Your task to perform on an android device: set default search engine in the chrome app Image 0: 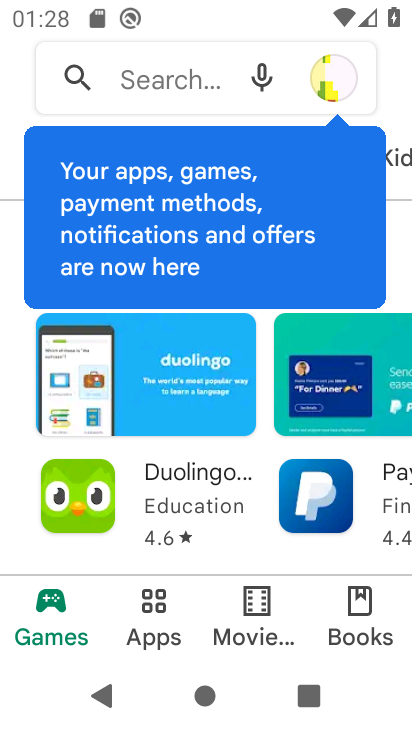
Step 0: press home button
Your task to perform on an android device: set default search engine in the chrome app Image 1: 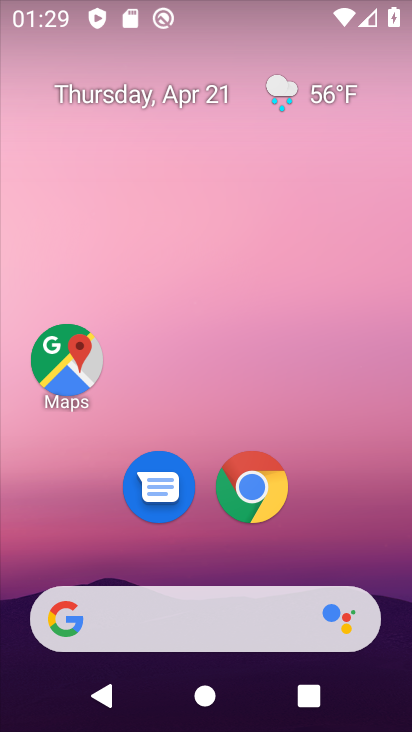
Step 1: click (257, 494)
Your task to perform on an android device: set default search engine in the chrome app Image 2: 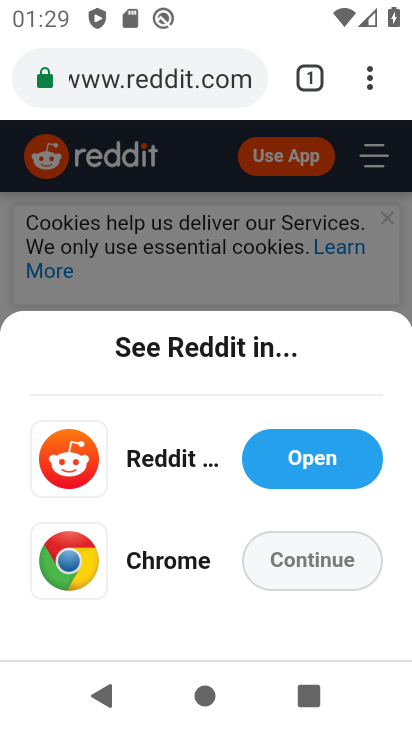
Step 2: click (370, 84)
Your task to perform on an android device: set default search engine in the chrome app Image 3: 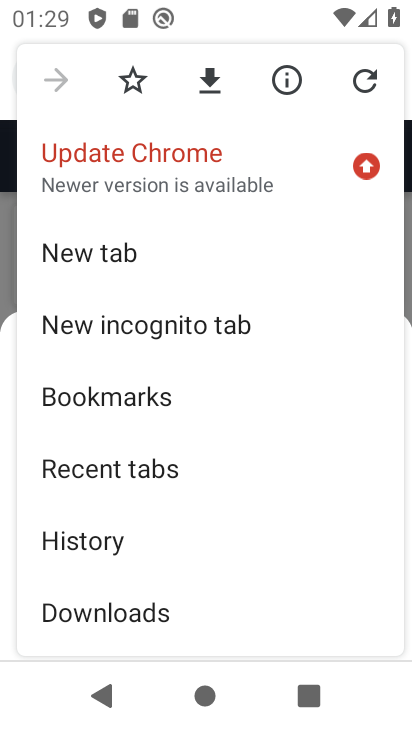
Step 3: drag from (149, 569) to (145, 349)
Your task to perform on an android device: set default search engine in the chrome app Image 4: 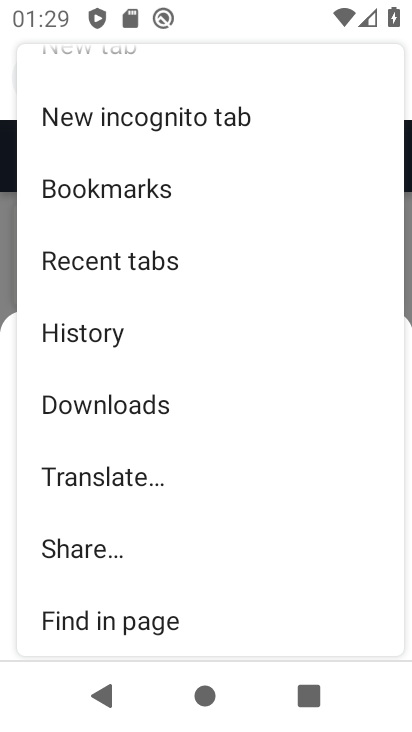
Step 4: drag from (174, 508) to (165, 373)
Your task to perform on an android device: set default search engine in the chrome app Image 5: 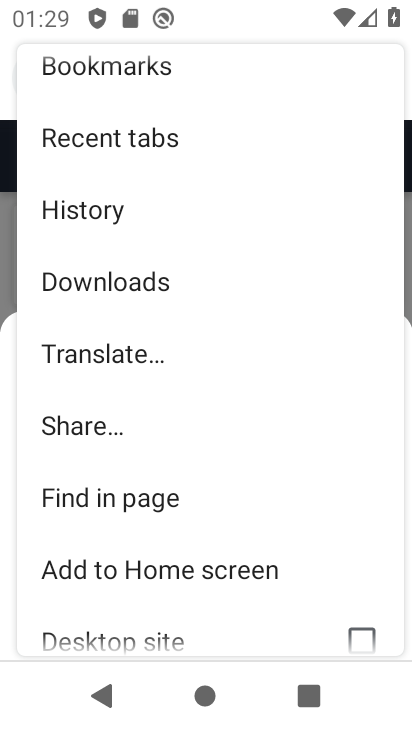
Step 5: drag from (186, 554) to (197, 400)
Your task to perform on an android device: set default search engine in the chrome app Image 6: 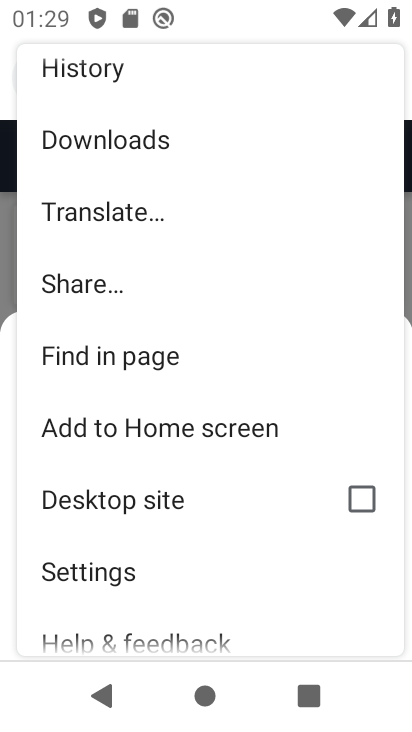
Step 6: click (181, 565)
Your task to perform on an android device: set default search engine in the chrome app Image 7: 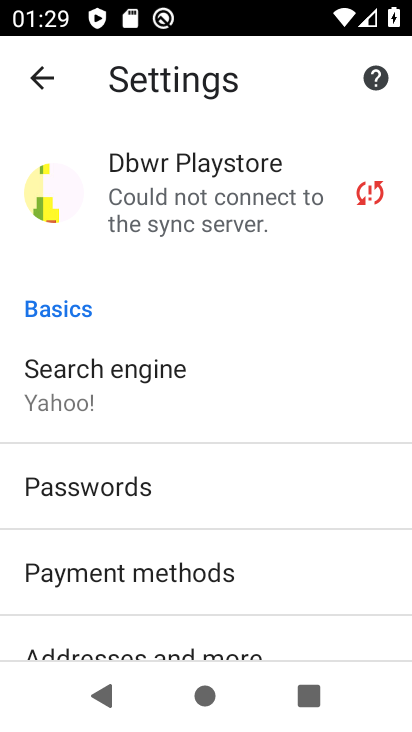
Step 7: click (174, 396)
Your task to perform on an android device: set default search engine in the chrome app Image 8: 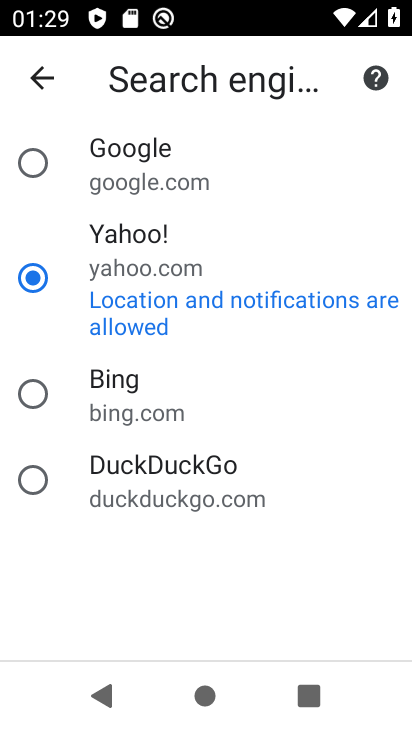
Step 8: click (187, 152)
Your task to perform on an android device: set default search engine in the chrome app Image 9: 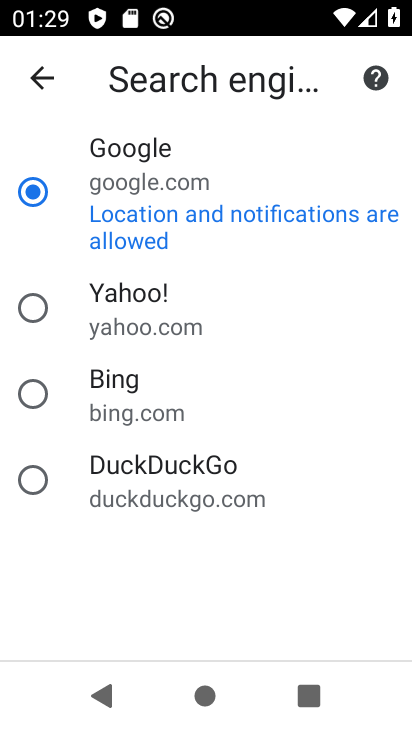
Step 9: task complete